Your task to perform on an android device: turn smart compose on in the gmail app Image 0: 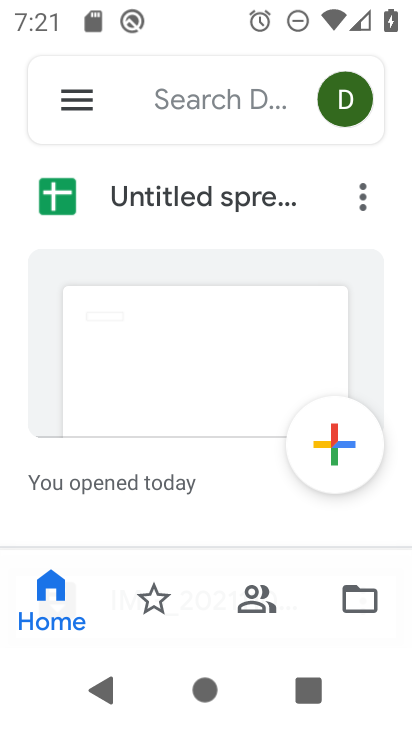
Step 0: press home button
Your task to perform on an android device: turn smart compose on in the gmail app Image 1: 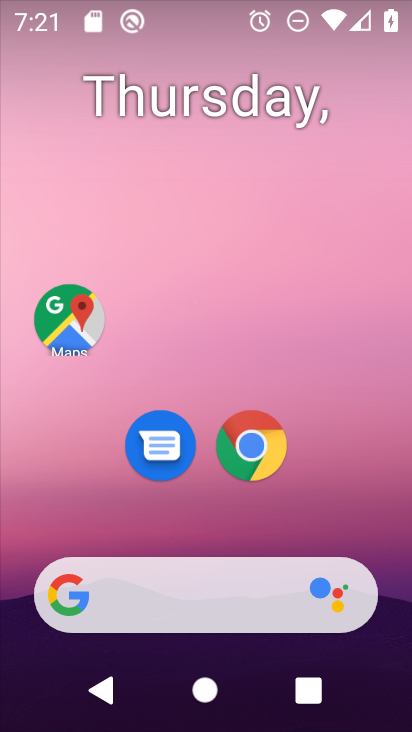
Step 1: drag from (337, 512) to (236, 63)
Your task to perform on an android device: turn smart compose on in the gmail app Image 2: 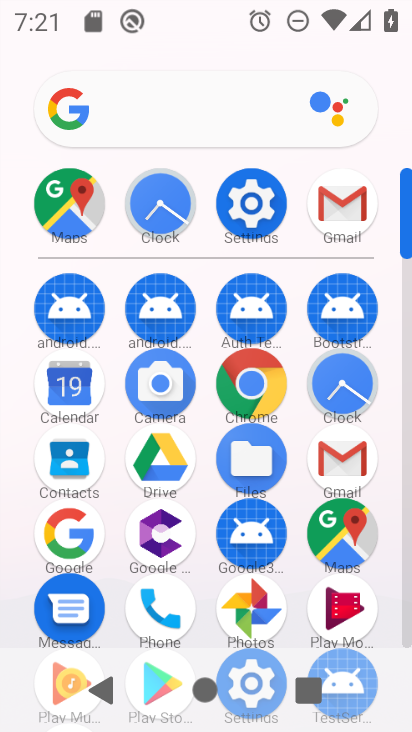
Step 2: click (345, 459)
Your task to perform on an android device: turn smart compose on in the gmail app Image 3: 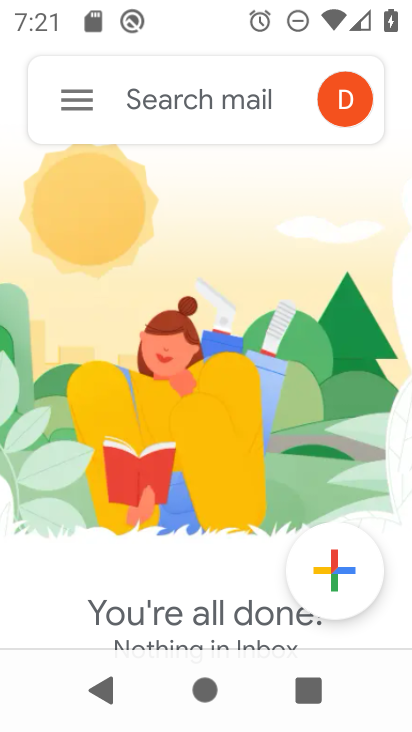
Step 3: click (76, 93)
Your task to perform on an android device: turn smart compose on in the gmail app Image 4: 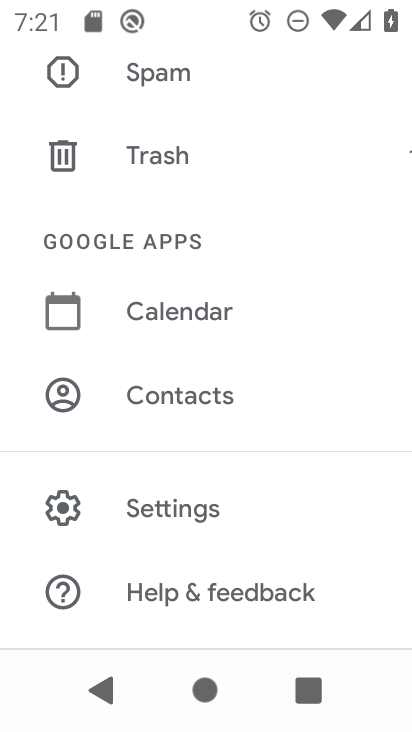
Step 4: click (169, 508)
Your task to perform on an android device: turn smart compose on in the gmail app Image 5: 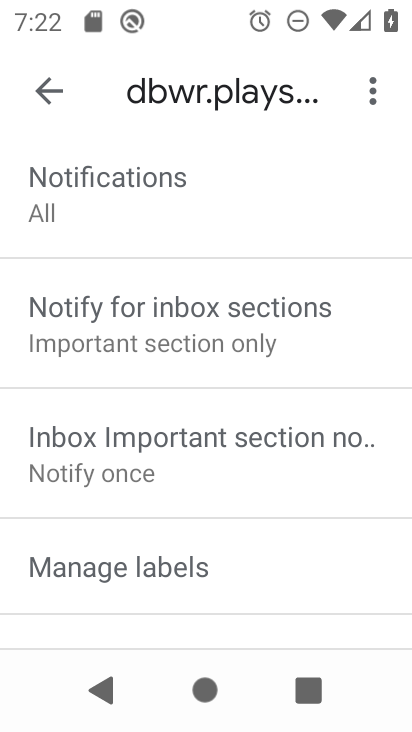
Step 5: task complete